Your task to perform on an android device: toggle data saver in the chrome app Image 0: 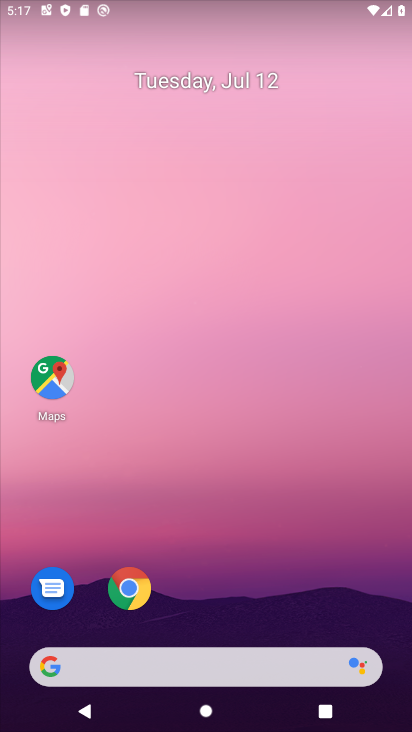
Step 0: drag from (218, 599) to (243, 118)
Your task to perform on an android device: toggle data saver in the chrome app Image 1: 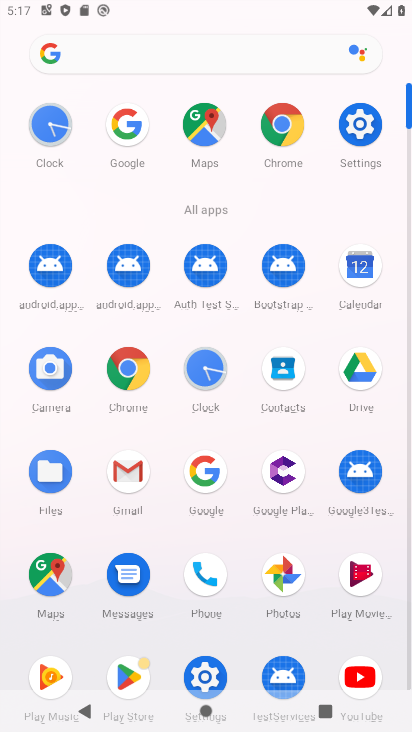
Step 1: click (271, 138)
Your task to perform on an android device: toggle data saver in the chrome app Image 2: 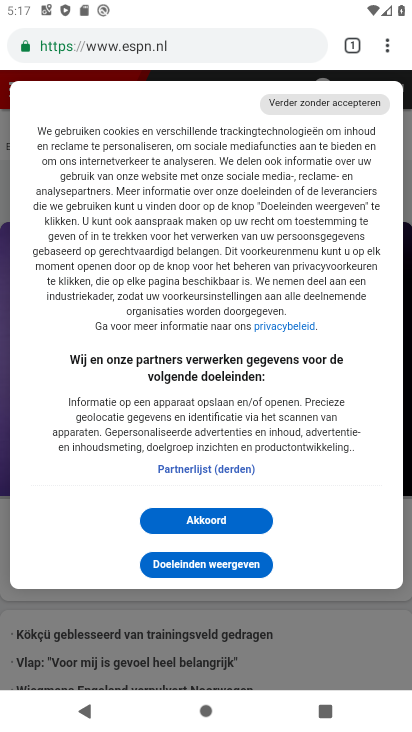
Step 2: drag from (377, 51) to (215, 543)
Your task to perform on an android device: toggle data saver in the chrome app Image 3: 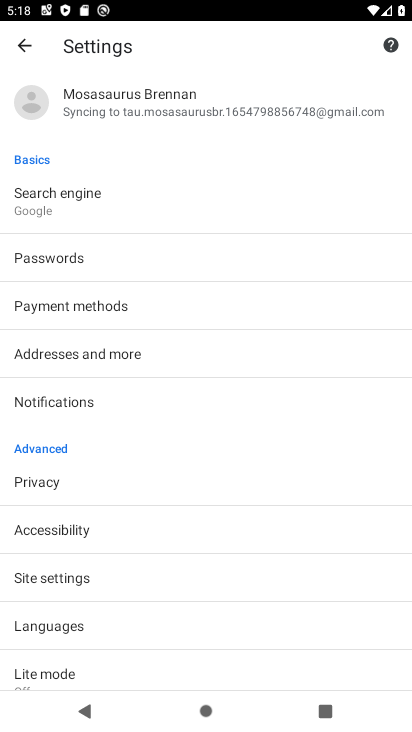
Step 3: drag from (138, 597) to (196, 268)
Your task to perform on an android device: toggle data saver in the chrome app Image 4: 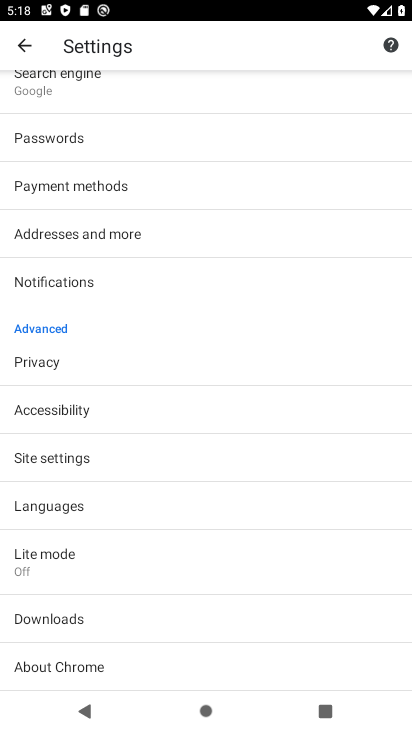
Step 4: click (68, 565)
Your task to perform on an android device: toggle data saver in the chrome app Image 5: 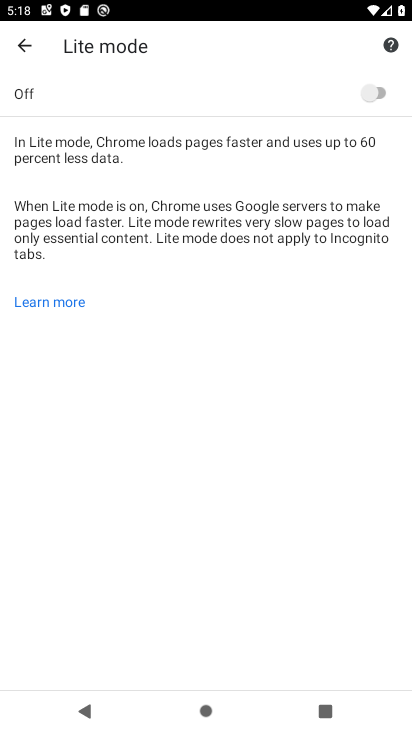
Step 5: click (384, 93)
Your task to perform on an android device: toggle data saver in the chrome app Image 6: 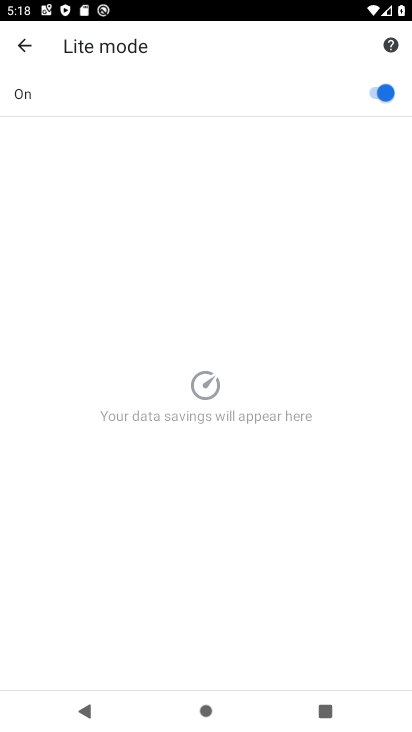
Step 6: task complete